Your task to perform on an android device: change the upload size in google photos Image 0: 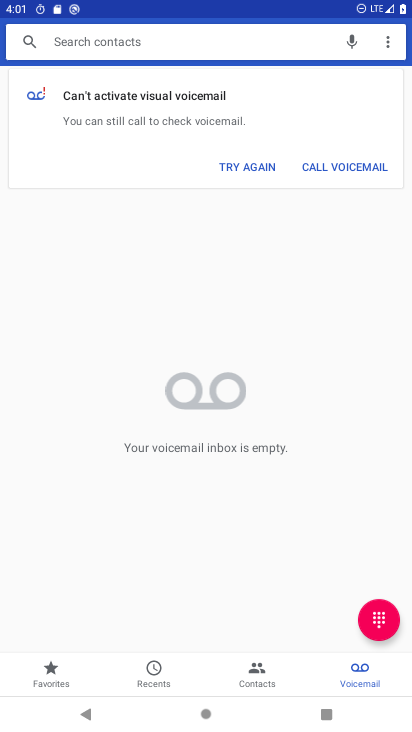
Step 0: press home button
Your task to perform on an android device: change the upload size in google photos Image 1: 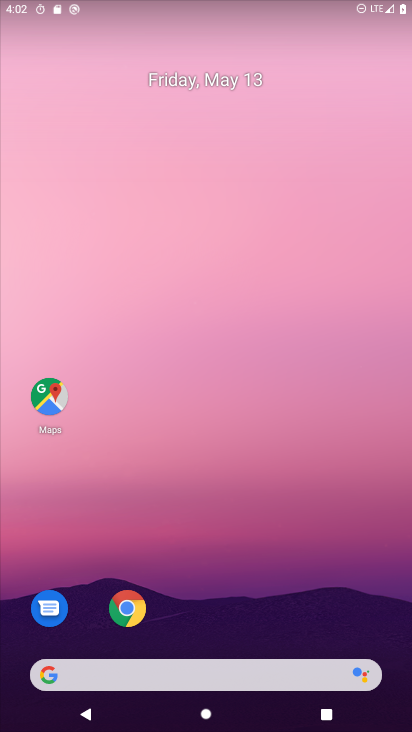
Step 1: drag from (303, 607) to (265, 206)
Your task to perform on an android device: change the upload size in google photos Image 2: 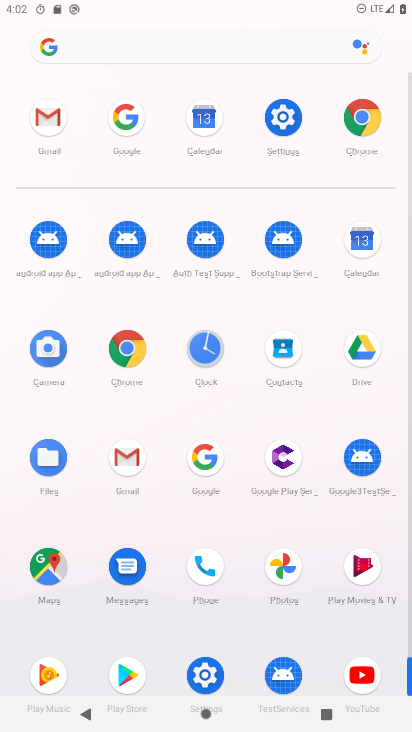
Step 2: drag from (165, 470) to (152, 343)
Your task to perform on an android device: change the upload size in google photos Image 3: 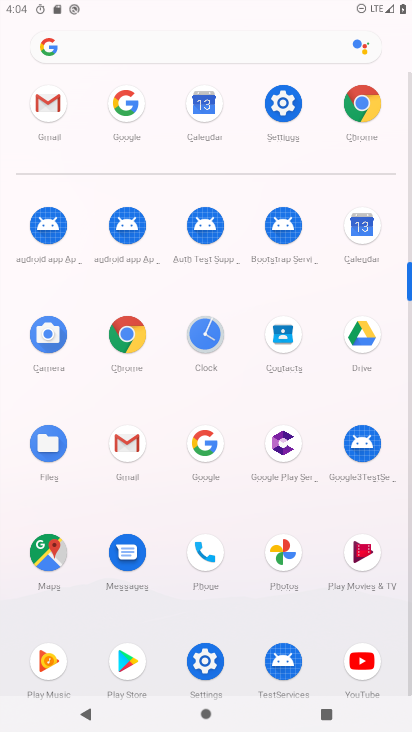
Step 3: click (292, 559)
Your task to perform on an android device: change the upload size in google photos Image 4: 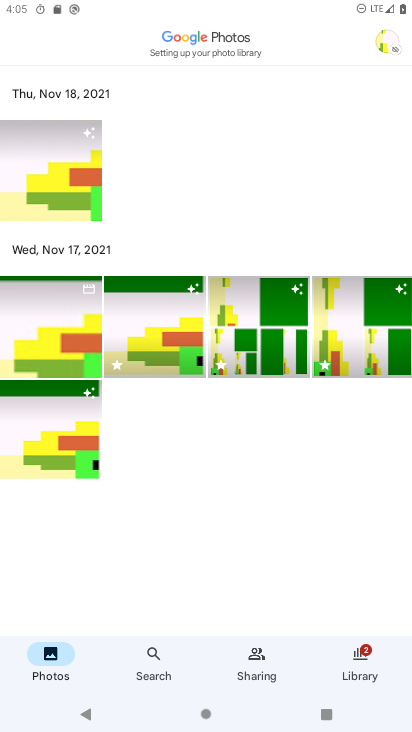
Step 4: click (150, 663)
Your task to perform on an android device: change the upload size in google photos Image 5: 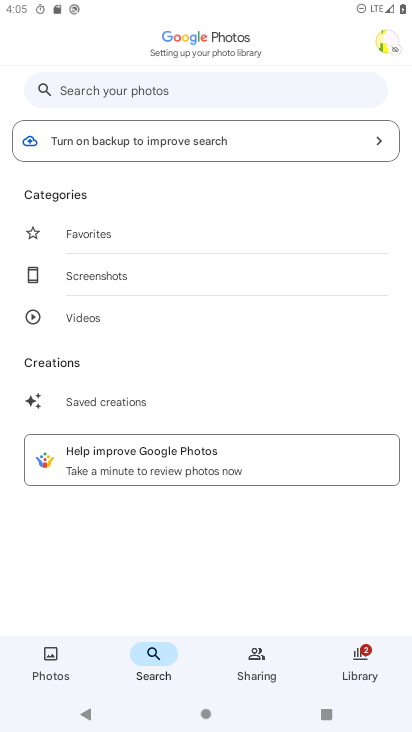
Step 5: click (146, 89)
Your task to perform on an android device: change the upload size in google photos Image 6: 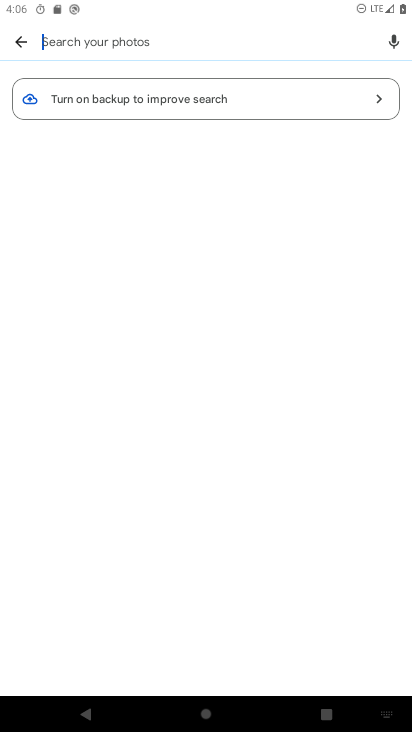
Step 6: click (24, 45)
Your task to perform on an android device: change the upload size in google photos Image 7: 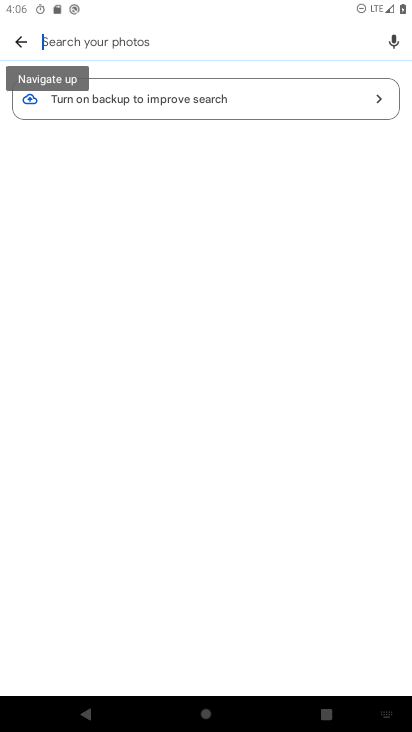
Step 7: click (24, 45)
Your task to perform on an android device: change the upload size in google photos Image 8: 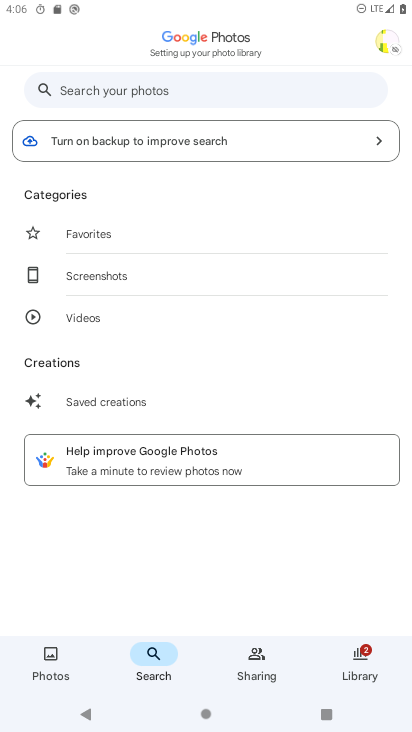
Step 8: click (24, 45)
Your task to perform on an android device: change the upload size in google photos Image 9: 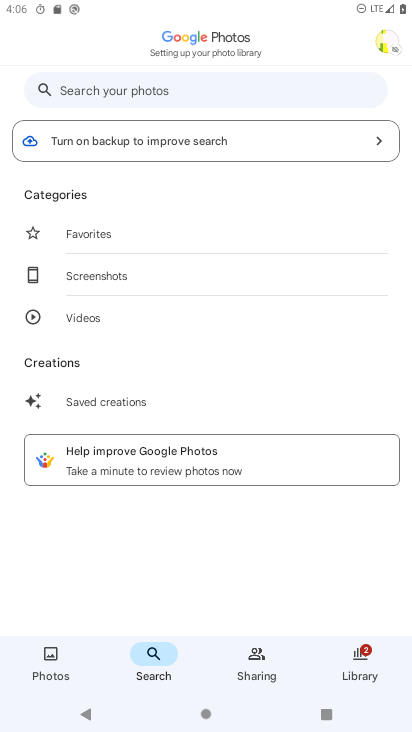
Step 9: click (59, 668)
Your task to perform on an android device: change the upload size in google photos Image 10: 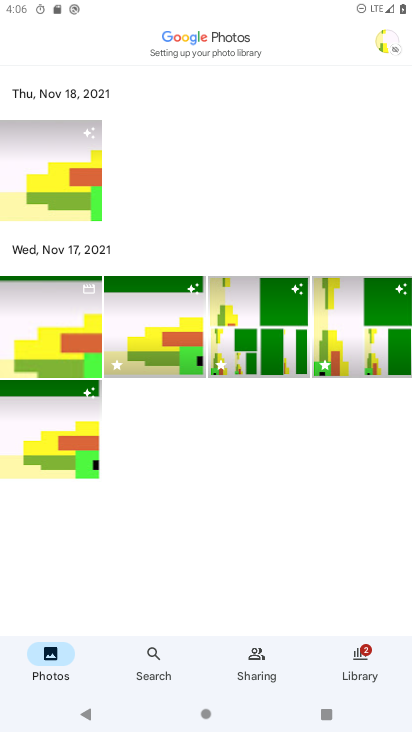
Step 10: click (397, 55)
Your task to perform on an android device: change the upload size in google photos Image 11: 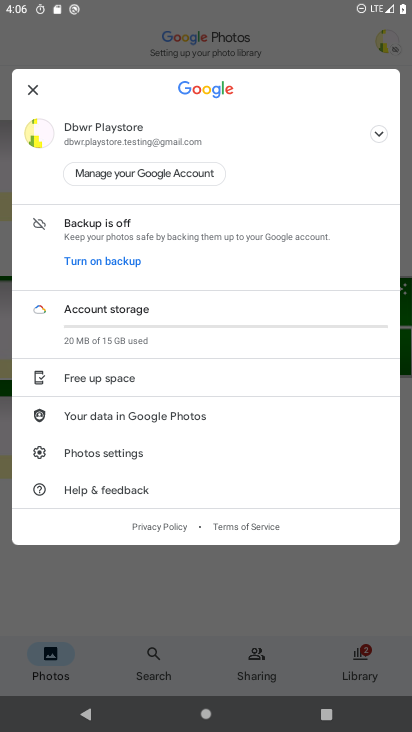
Step 11: click (103, 455)
Your task to perform on an android device: change the upload size in google photos Image 12: 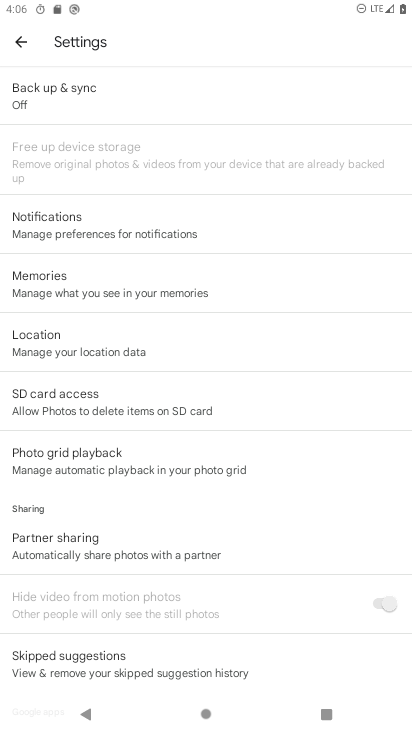
Step 12: click (94, 115)
Your task to perform on an android device: change the upload size in google photos Image 13: 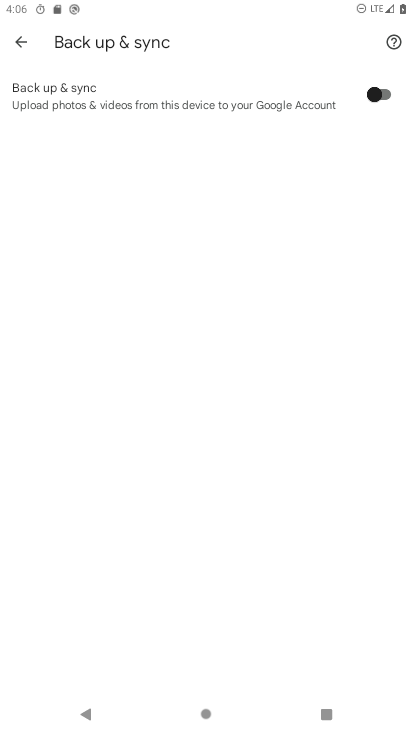
Step 13: click (6, 47)
Your task to perform on an android device: change the upload size in google photos Image 14: 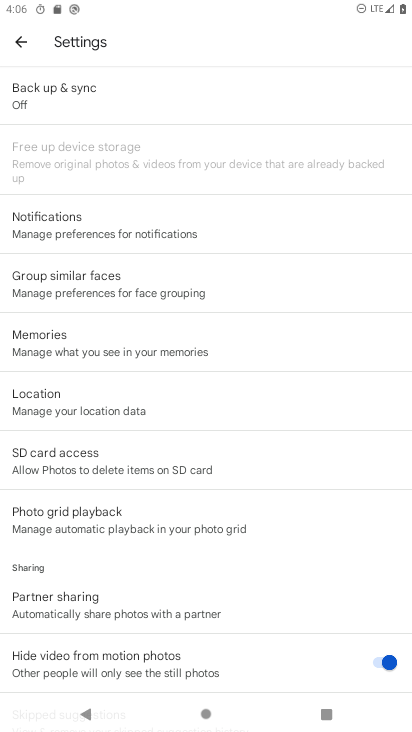
Step 14: click (81, 652)
Your task to perform on an android device: change the upload size in google photos Image 15: 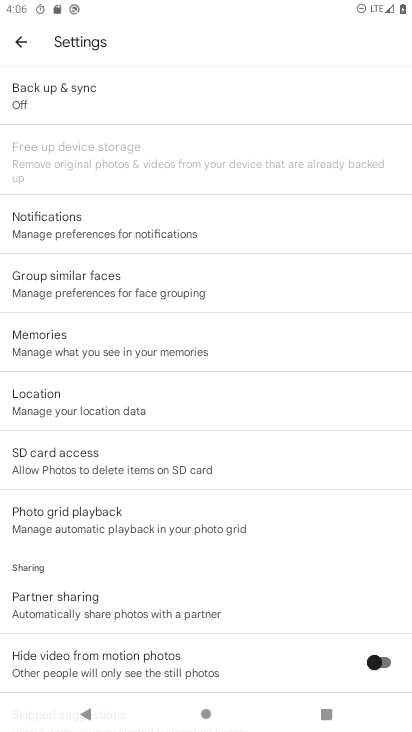
Step 15: task complete